Your task to perform on an android device: Go to Wikipedia Image 0: 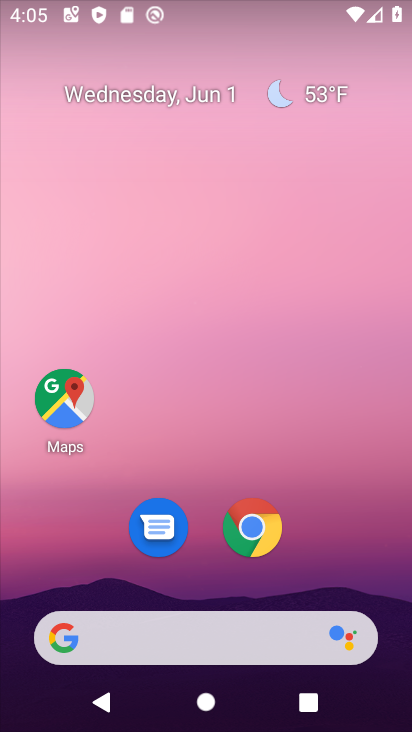
Step 0: click (241, 529)
Your task to perform on an android device: Go to Wikipedia Image 1: 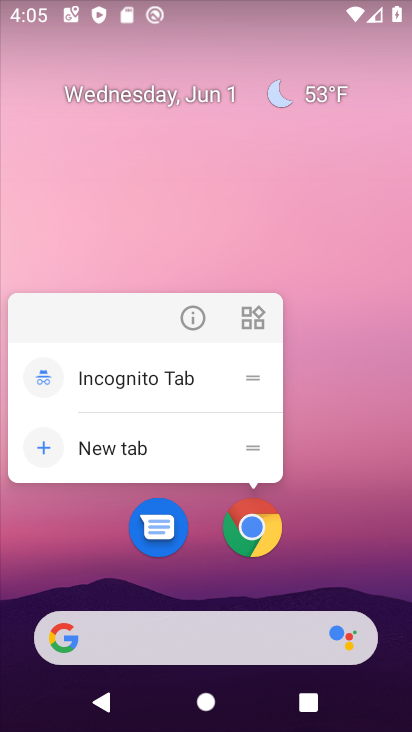
Step 1: click (330, 520)
Your task to perform on an android device: Go to Wikipedia Image 2: 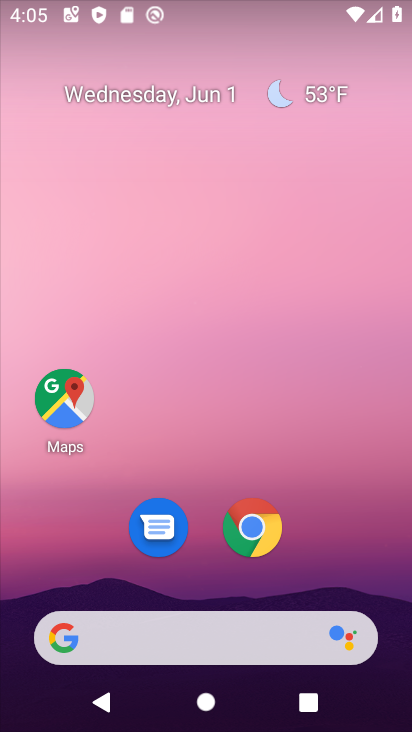
Step 2: drag from (321, 555) to (348, 116)
Your task to perform on an android device: Go to Wikipedia Image 3: 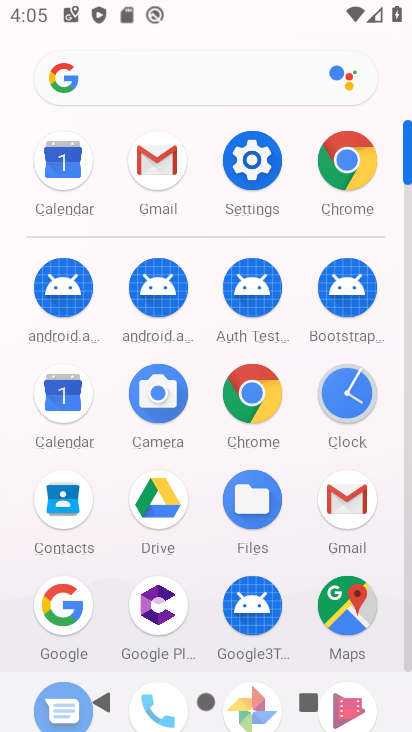
Step 3: click (257, 396)
Your task to perform on an android device: Go to Wikipedia Image 4: 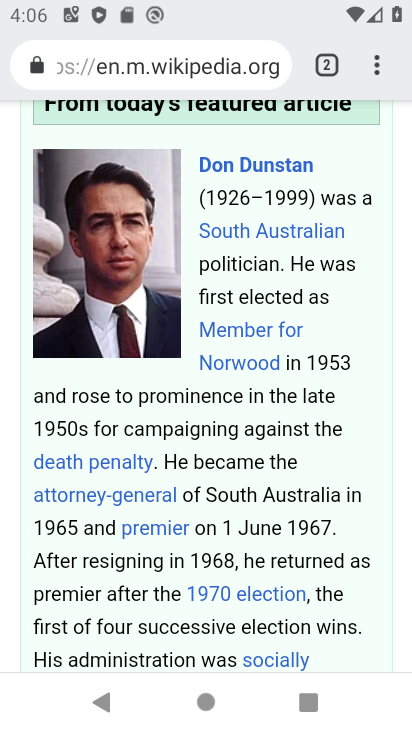
Step 4: task complete